Your task to perform on an android device: turn pop-ups on in chrome Image 0: 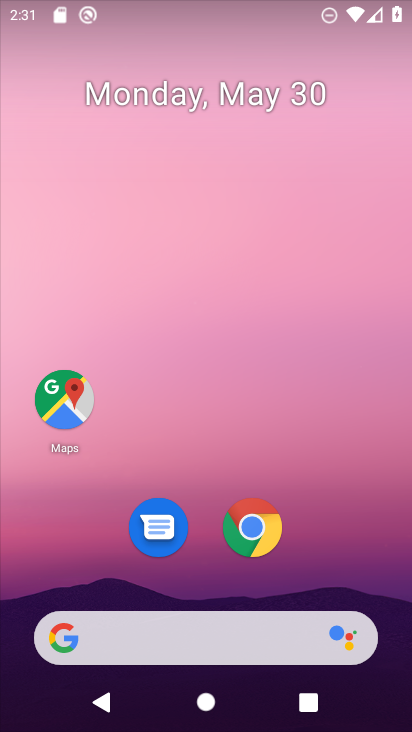
Step 0: drag from (262, 689) to (213, 106)
Your task to perform on an android device: turn pop-ups on in chrome Image 1: 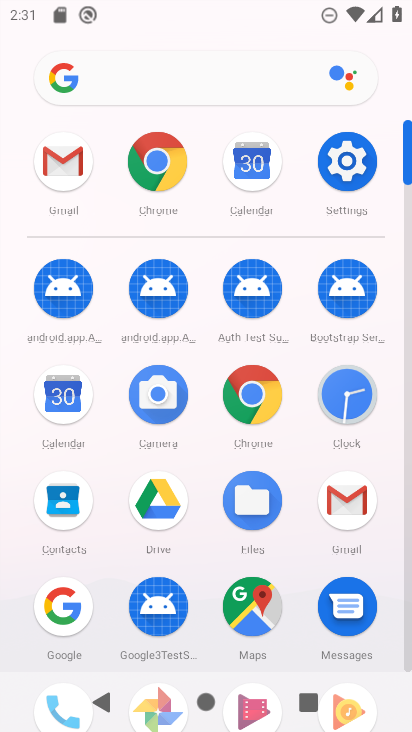
Step 1: click (142, 154)
Your task to perform on an android device: turn pop-ups on in chrome Image 2: 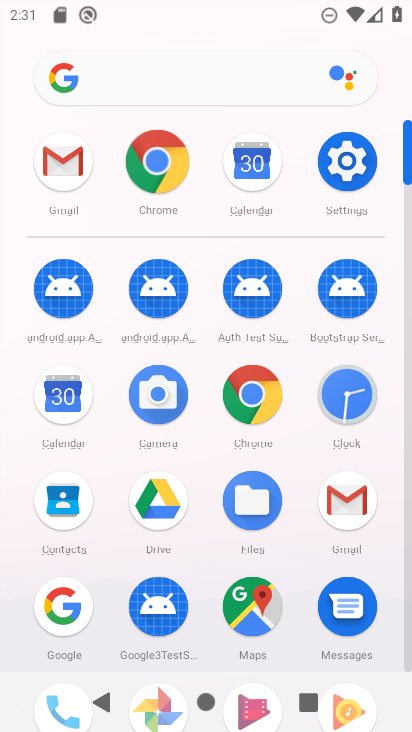
Step 2: click (143, 154)
Your task to perform on an android device: turn pop-ups on in chrome Image 3: 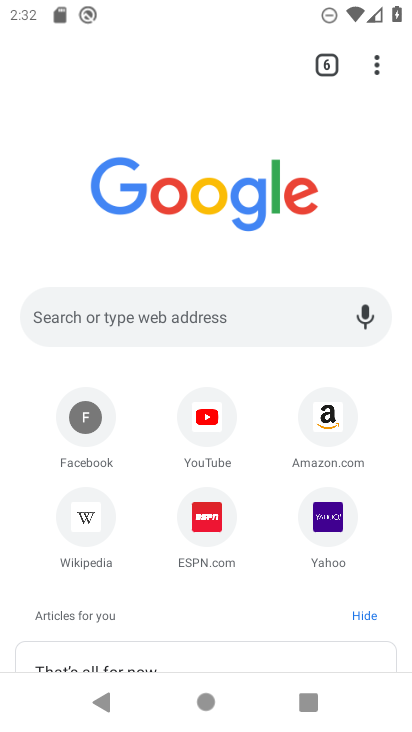
Step 3: click (370, 69)
Your task to perform on an android device: turn pop-ups on in chrome Image 4: 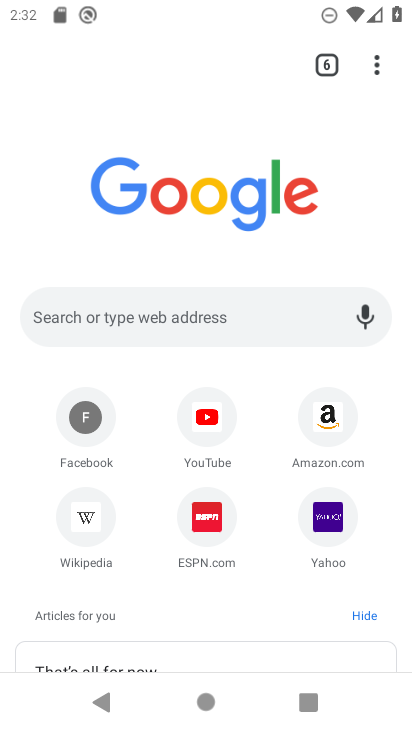
Step 4: drag from (374, 65) to (125, 540)
Your task to perform on an android device: turn pop-ups on in chrome Image 5: 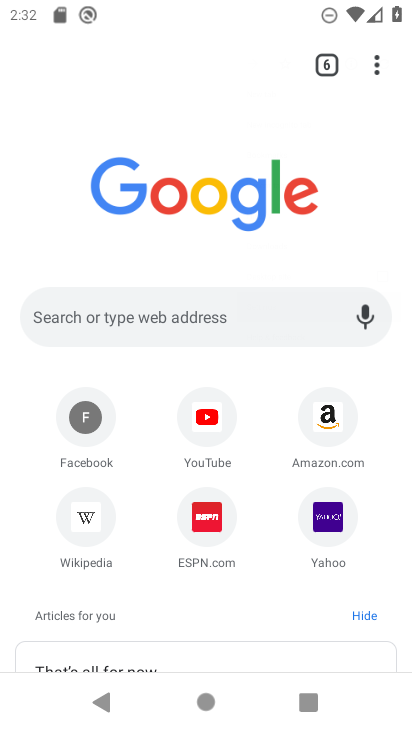
Step 5: click (129, 545)
Your task to perform on an android device: turn pop-ups on in chrome Image 6: 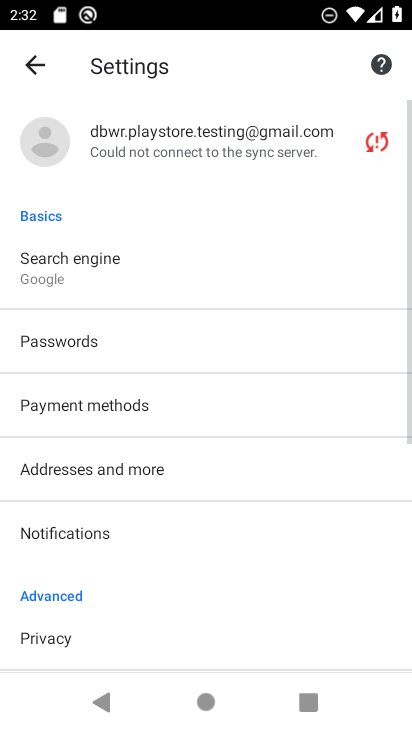
Step 6: drag from (135, 428) to (148, 150)
Your task to perform on an android device: turn pop-ups on in chrome Image 7: 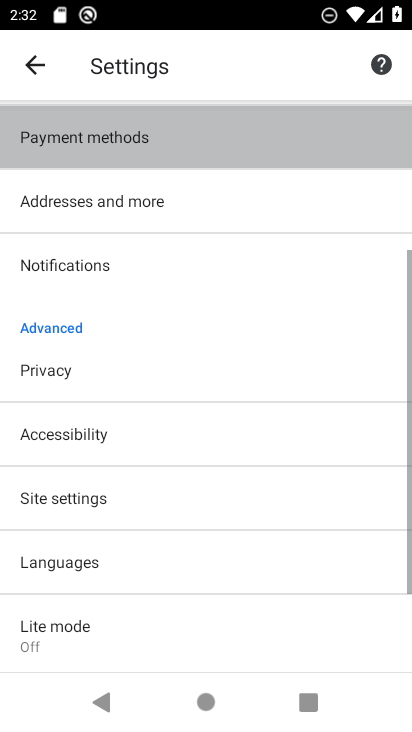
Step 7: drag from (166, 426) to (124, 117)
Your task to perform on an android device: turn pop-ups on in chrome Image 8: 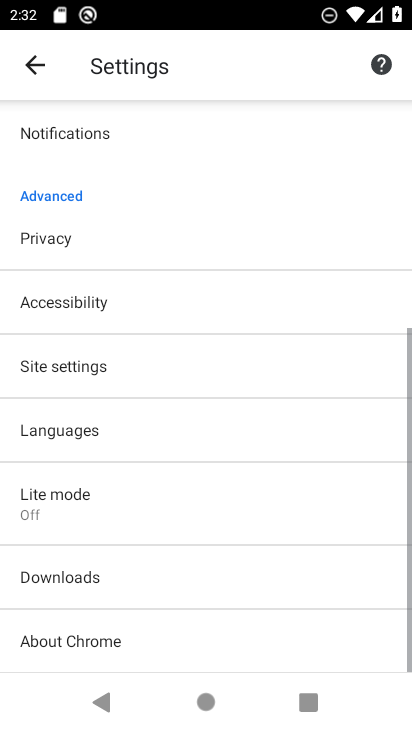
Step 8: drag from (123, 196) to (108, 10)
Your task to perform on an android device: turn pop-ups on in chrome Image 9: 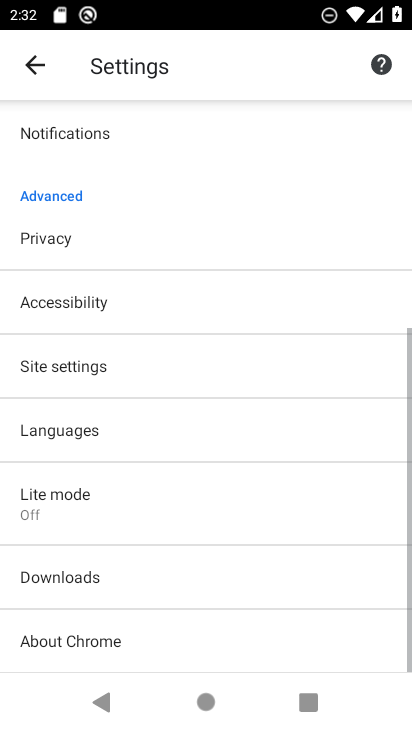
Step 9: click (54, 369)
Your task to perform on an android device: turn pop-ups on in chrome Image 10: 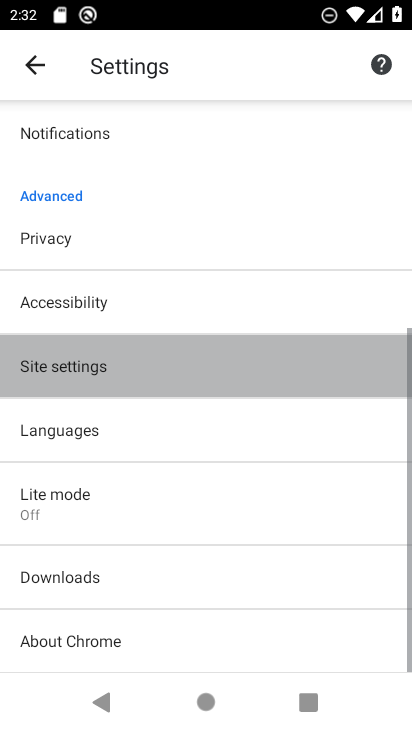
Step 10: click (54, 369)
Your task to perform on an android device: turn pop-ups on in chrome Image 11: 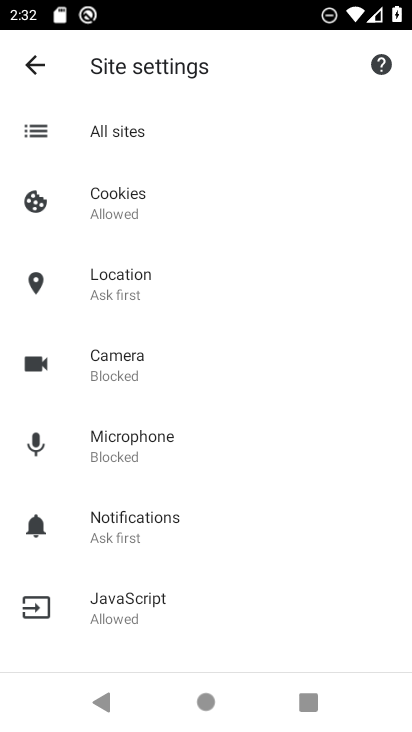
Step 11: drag from (127, 472) to (111, 43)
Your task to perform on an android device: turn pop-ups on in chrome Image 12: 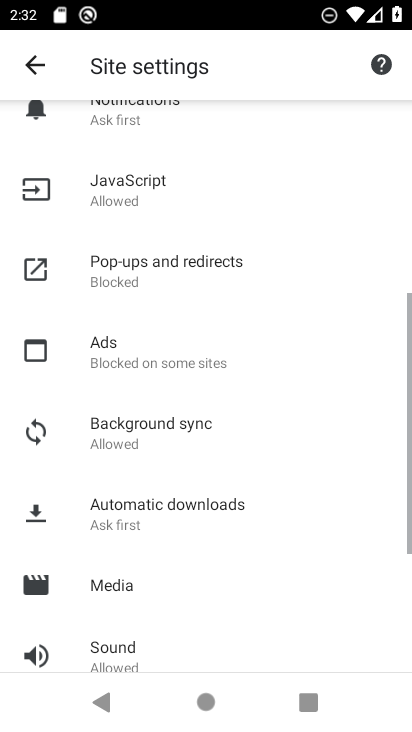
Step 12: drag from (108, 484) to (111, 183)
Your task to perform on an android device: turn pop-ups on in chrome Image 13: 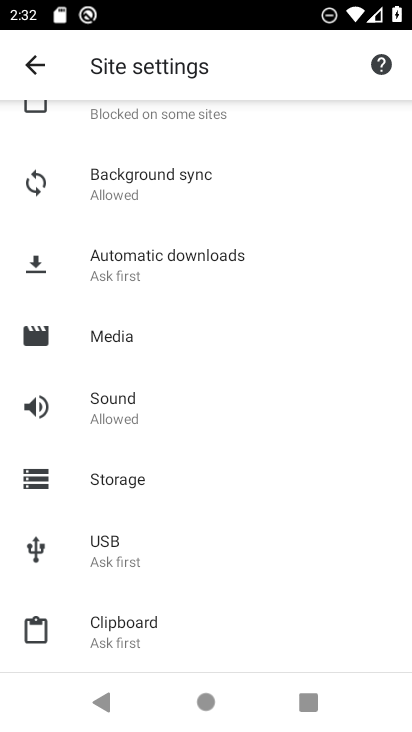
Step 13: drag from (107, 182) to (77, 608)
Your task to perform on an android device: turn pop-ups on in chrome Image 14: 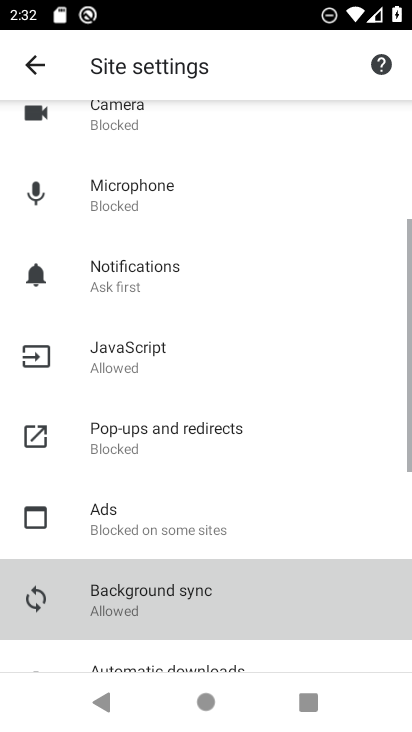
Step 14: drag from (160, 274) to (92, 643)
Your task to perform on an android device: turn pop-ups on in chrome Image 15: 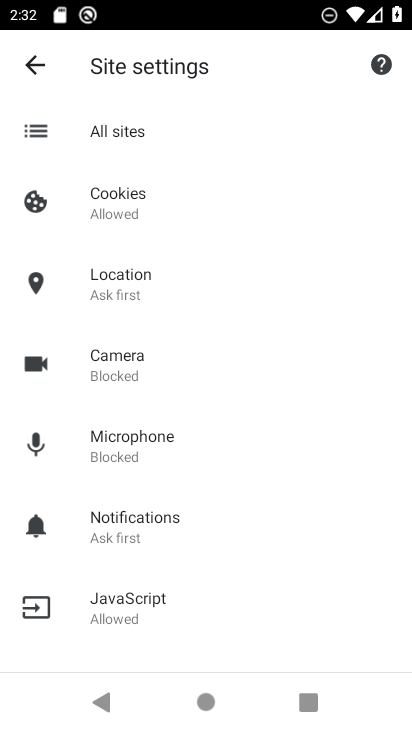
Step 15: drag from (128, 549) to (115, 115)
Your task to perform on an android device: turn pop-ups on in chrome Image 16: 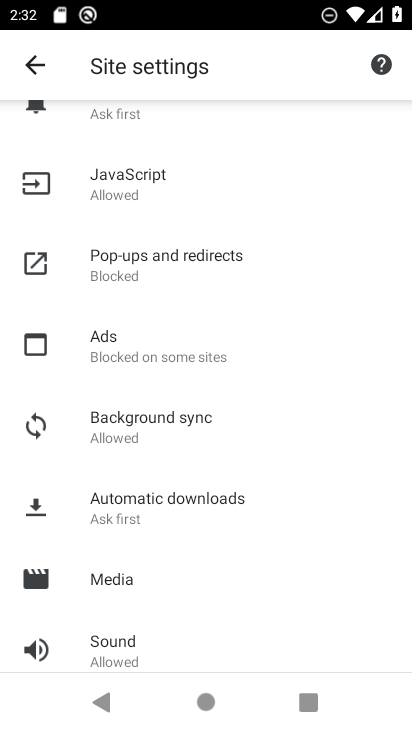
Step 16: click (117, 258)
Your task to perform on an android device: turn pop-ups on in chrome Image 17: 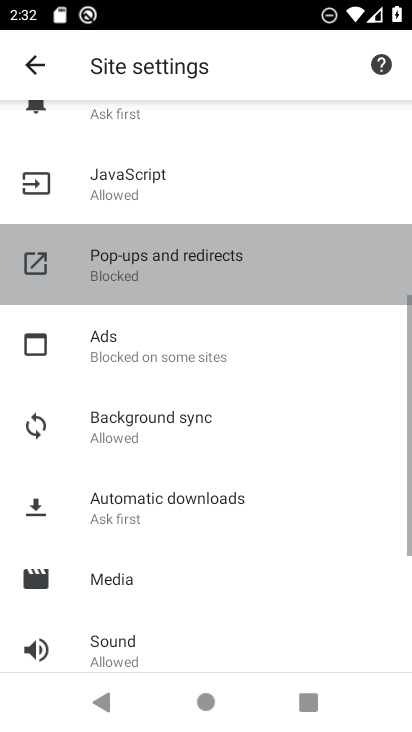
Step 17: click (116, 257)
Your task to perform on an android device: turn pop-ups on in chrome Image 18: 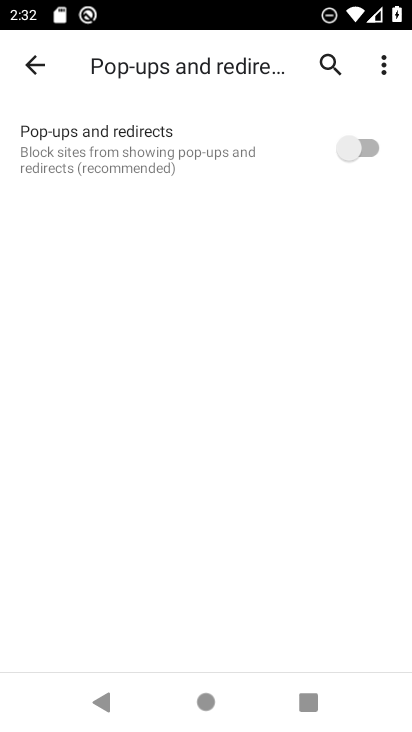
Step 18: click (365, 146)
Your task to perform on an android device: turn pop-ups on in chrome Image 19: 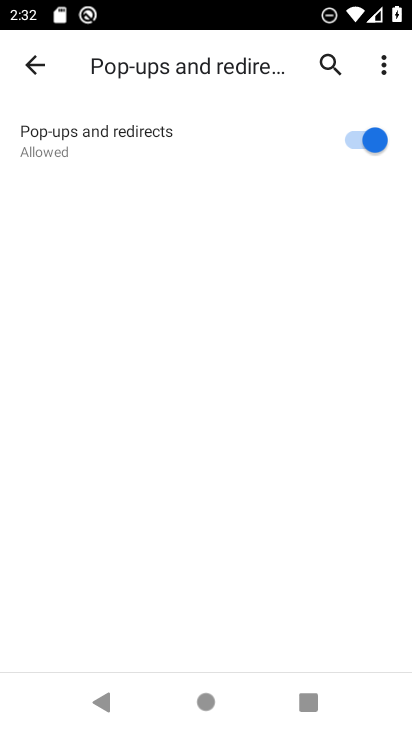
Step 19: task complete